Your task to perform on an android device: Go to Yahoo.com Image 0: 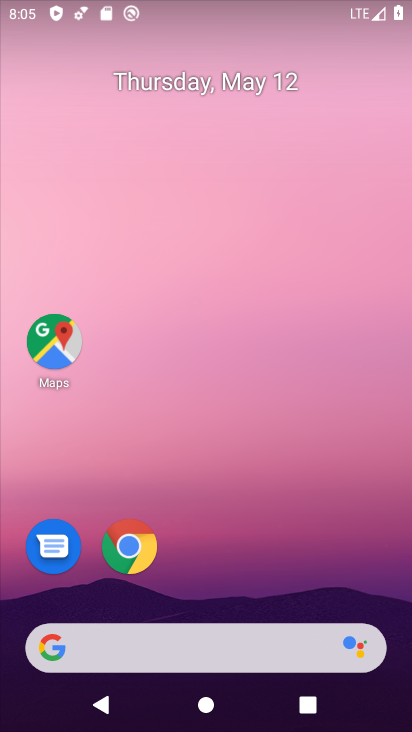
Step 0: click (152, 546)
Your task to perform on an android device: Go to Yahoo.com Image 1: 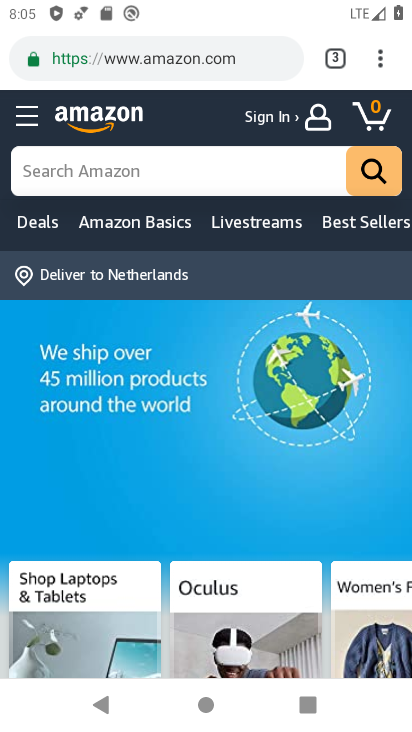
Step 1: click (323, 54)
Your task to perform on an android device: Go to Yahoo.com Image 2: 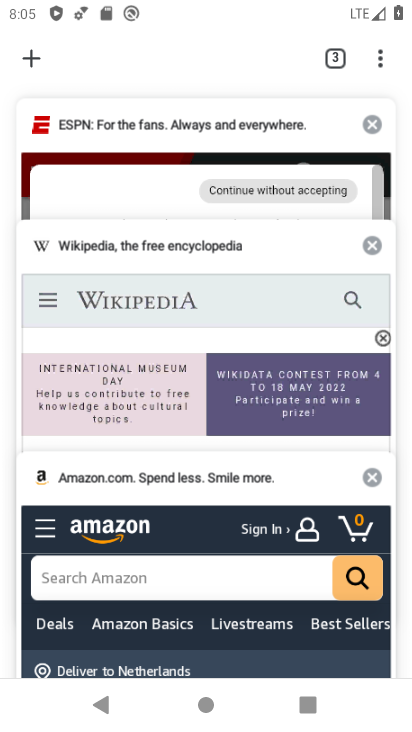
Step 2: click (31, 57)
Your task to perform on an android device: Go to Yahoo.com Image 3: 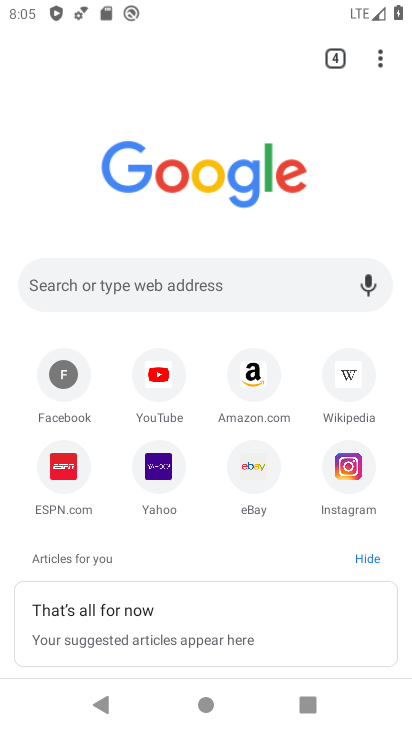
Step 3: click (158, 466)
Your task to perform on an android device: Go to Yahoo.com Image 4: 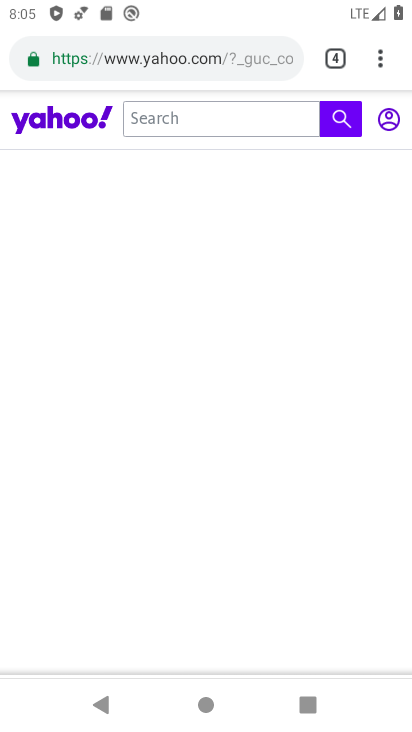
Step 4: task complete